Your task to perform on an android device: open a new tab in the chrome app Image 0: 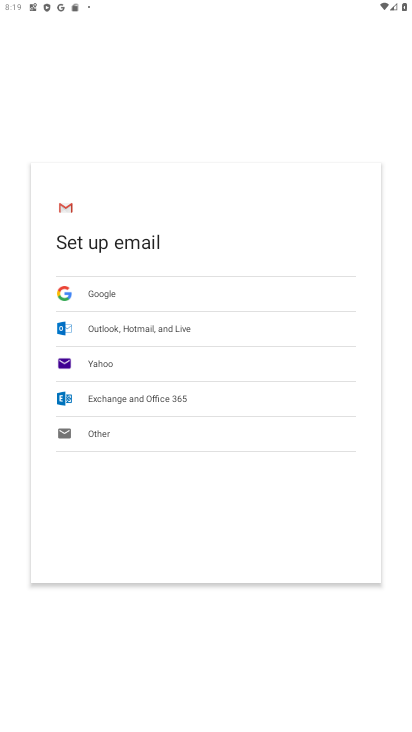
Step 0: press home button
Your task to perform on an android device: open a new tab in the chrome app Image 1: 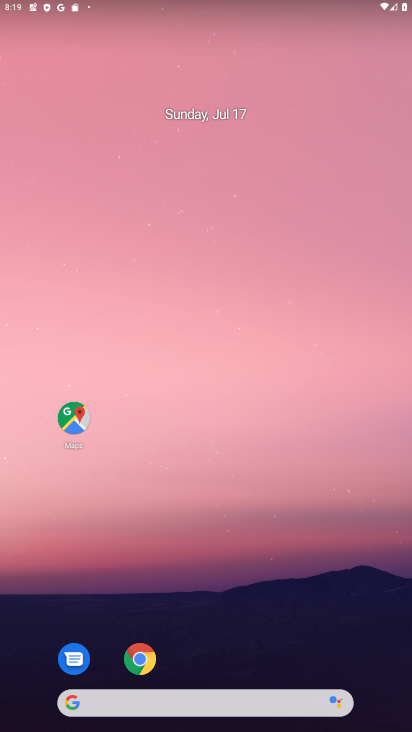
Step 1: click (139, 663)
Your task to perform on an android device: open a new tab in the chrome app Image 2: 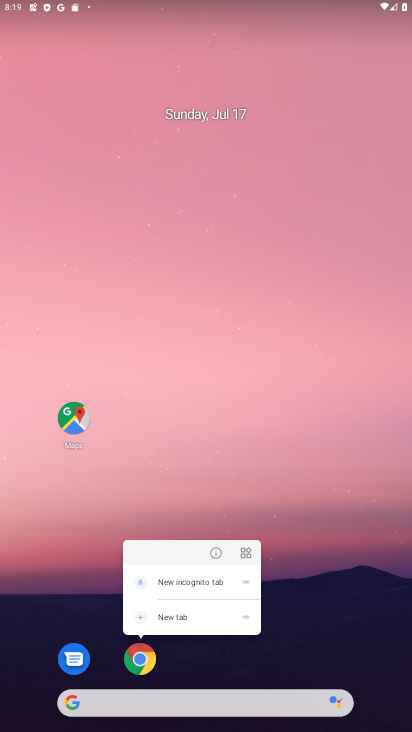
Step 2: click (356, 653)
Your task to perform on an android device: open a new tab in the chrome app Image 3: 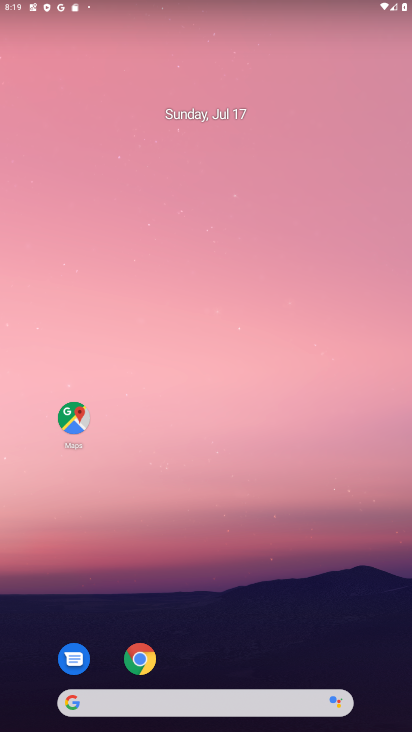
Step 3: click (137, 657)
Your task to perform on an android device: open a new tab in the chrome app Image 4: 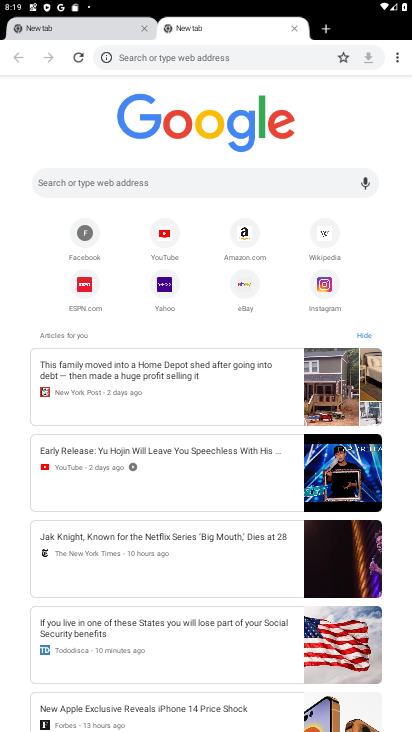
Step 4: click (324, 27)
Your task to perform on an android device: open a new tab in the chrome app Image 5: 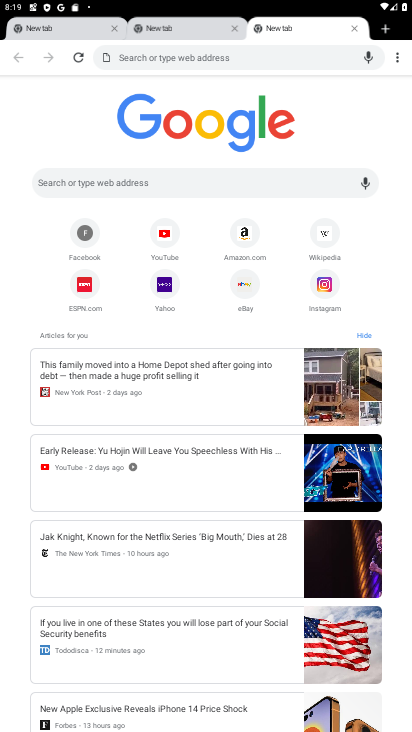
Step 5: task complete